Your task to perform on an android device: star an email in the gmail app Image 0: 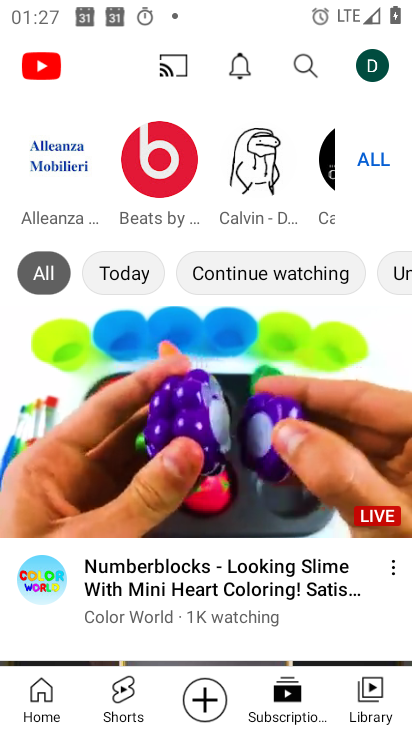
Step 0: press home button
Your task to perform on an android device: star an email in the gmail app Image 1: 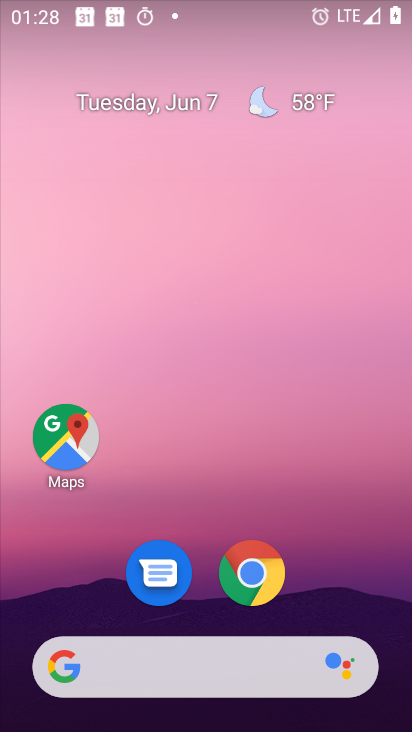
Step 1: drag from (343, 572) to (342, 7)
Your task to perform on an android device: star an email in the gmail app Image 2: 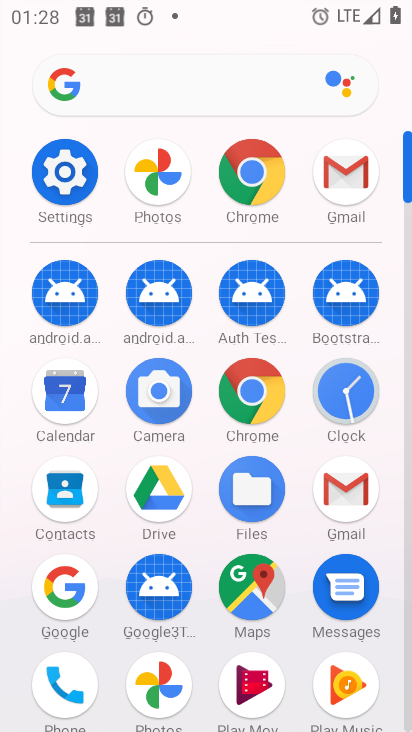
Step 2: click (334, 496)
Your task to perform on an android device: star an email in the gmail app Image 3: 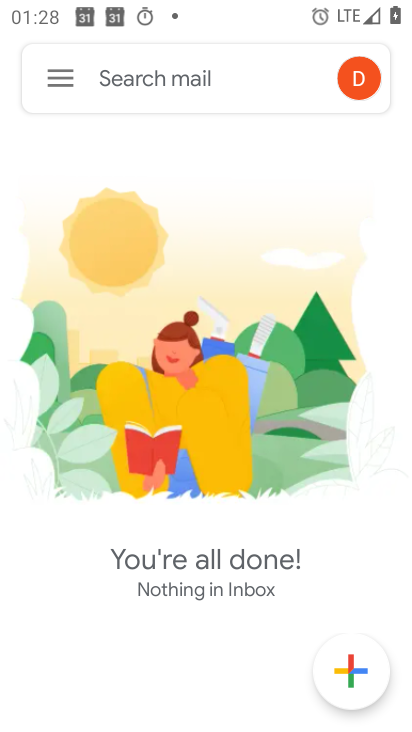
Step 3: task complete